Your task to perform on an android device: open app "Adobe Acrobat Reader: Edit PDF" (install if not already installed) and go to login screen Image 0: 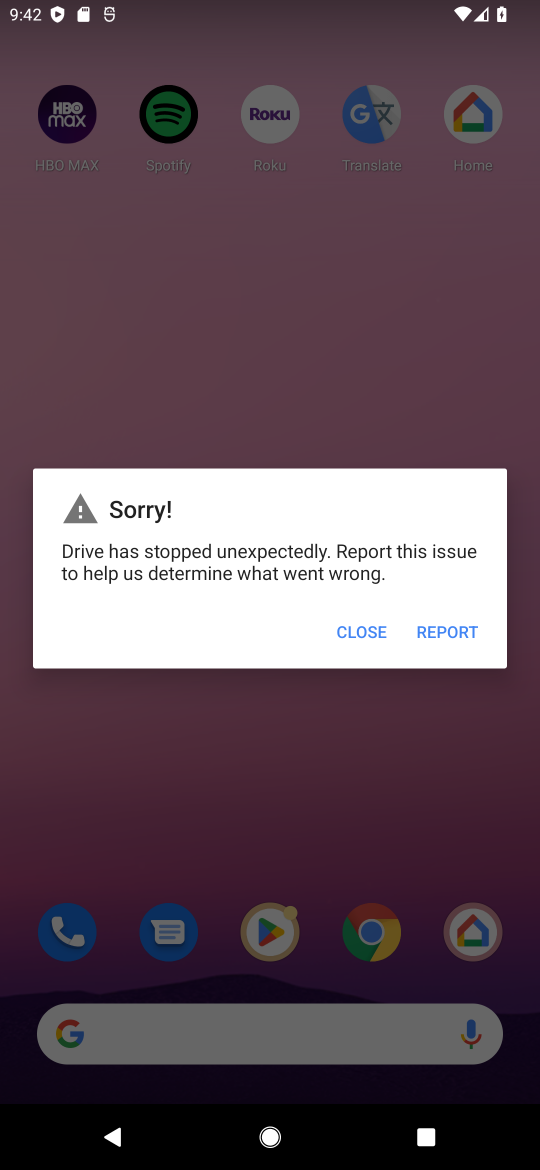
Step 0: click (347, 631)
Your task to perform on an android device: open app "Adobe Acrobat Reader: Edit PDF" (install if not already installed) and go to login screen Image 1: 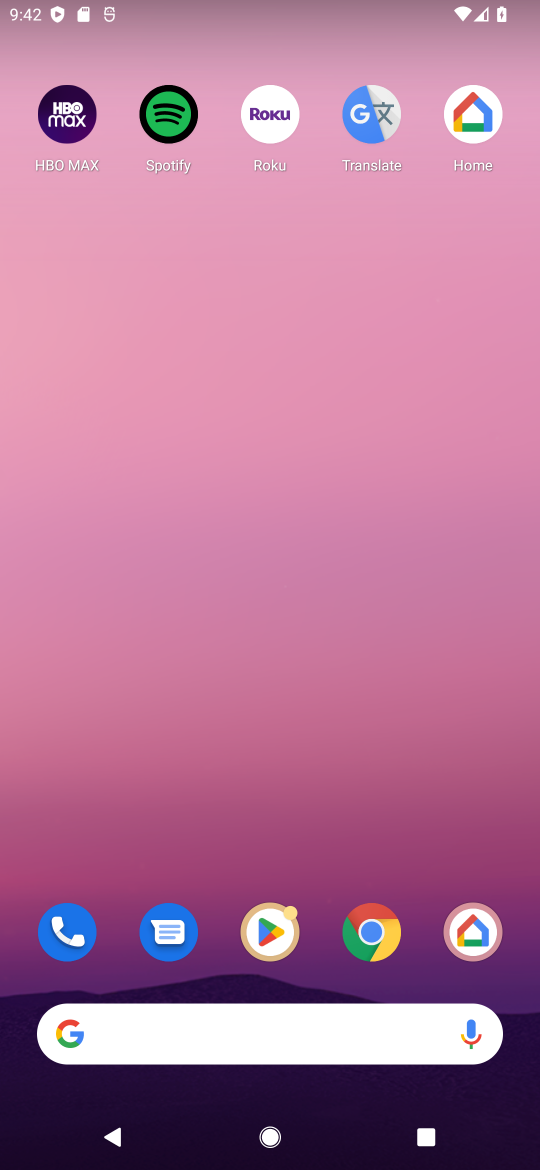
Step 1: click (272, 924)
Your task to perform on an android device: open app "Adobe Acrobat Reader: Edit PDF" (install if not already installed) and go to login screen Image 2: 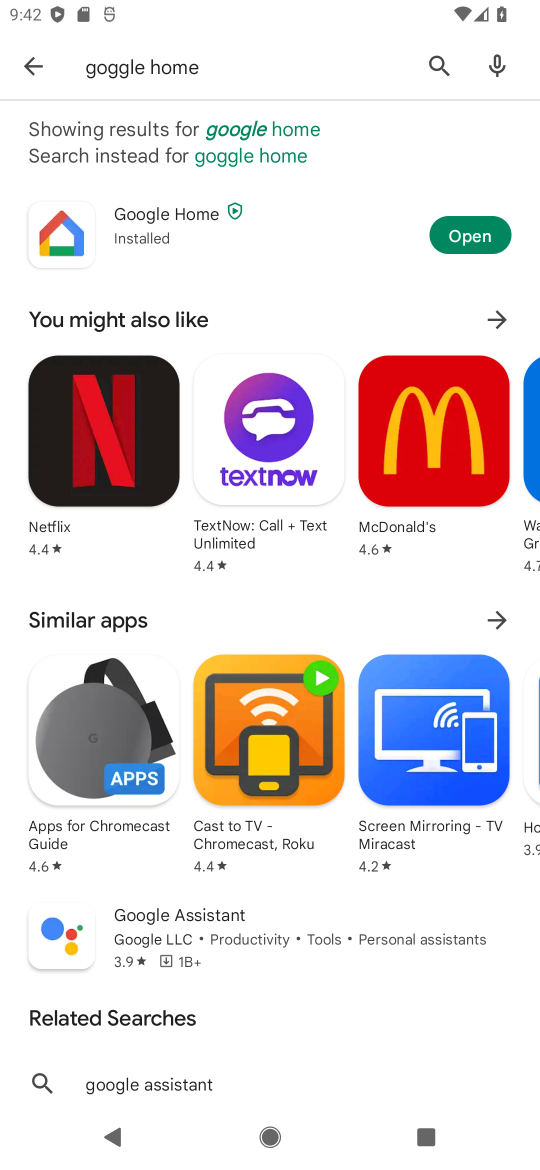
Step 2: click (433, 56)
Your task to perform on an android device: open app "Adobe Acrobat Reader: Edit PDF" (install if not already installed) and go to login screen Image 3: 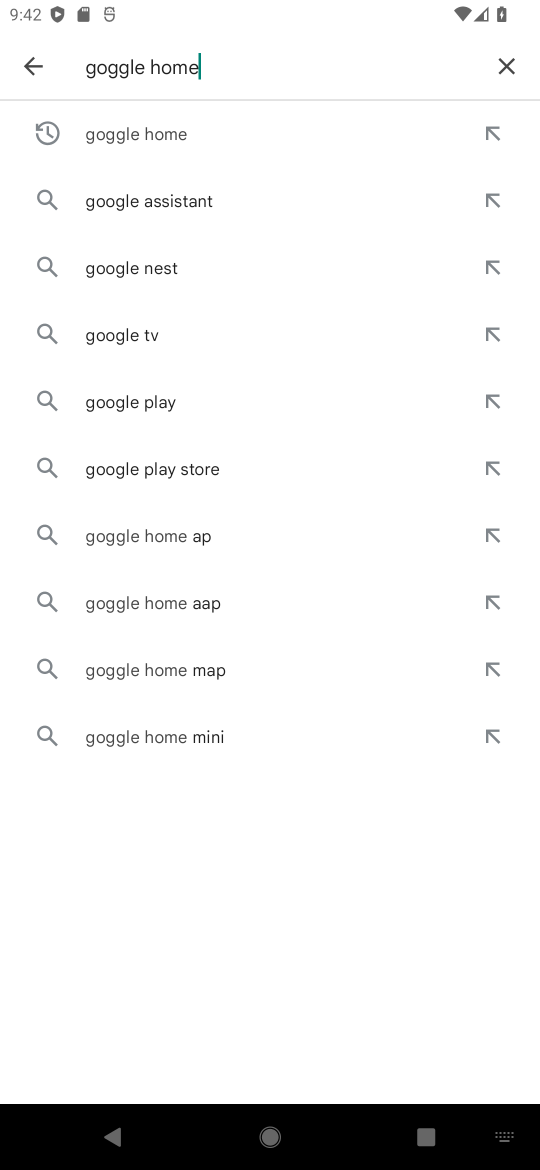
Step 3: click (509, 62)
Your task to perform on an android device: open app "Adobe Acrobat Reader: Edit PDF" (install if not already installed) and go to login screen Image 4: 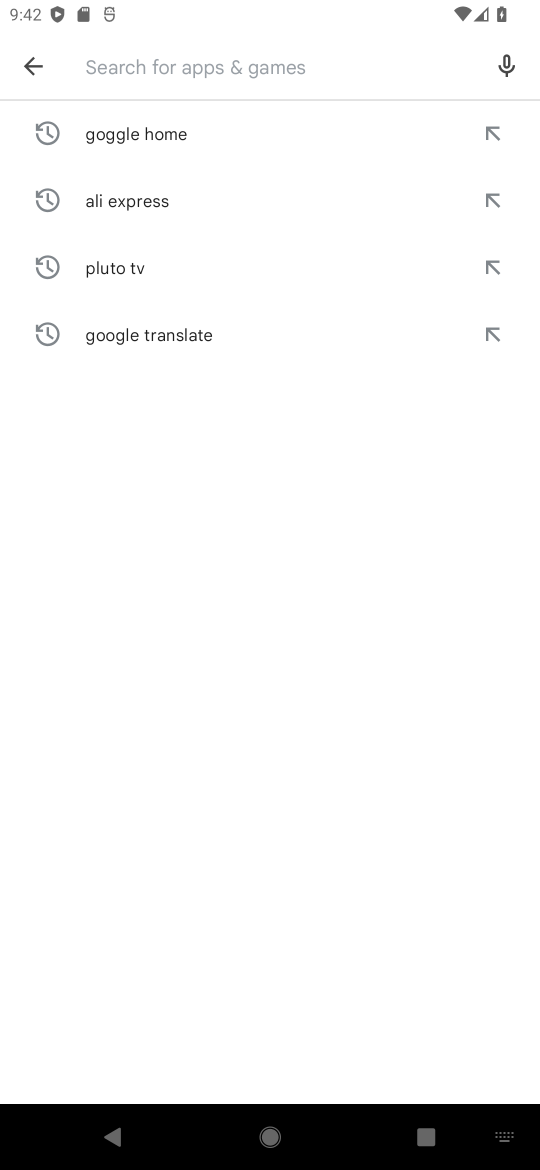
Step 4: click (156, 69)
Your task to perform on an android device: open app "Adobe Acrobat Reader: Edit PDF" (install if not already installed) and go to login screen Image 5: 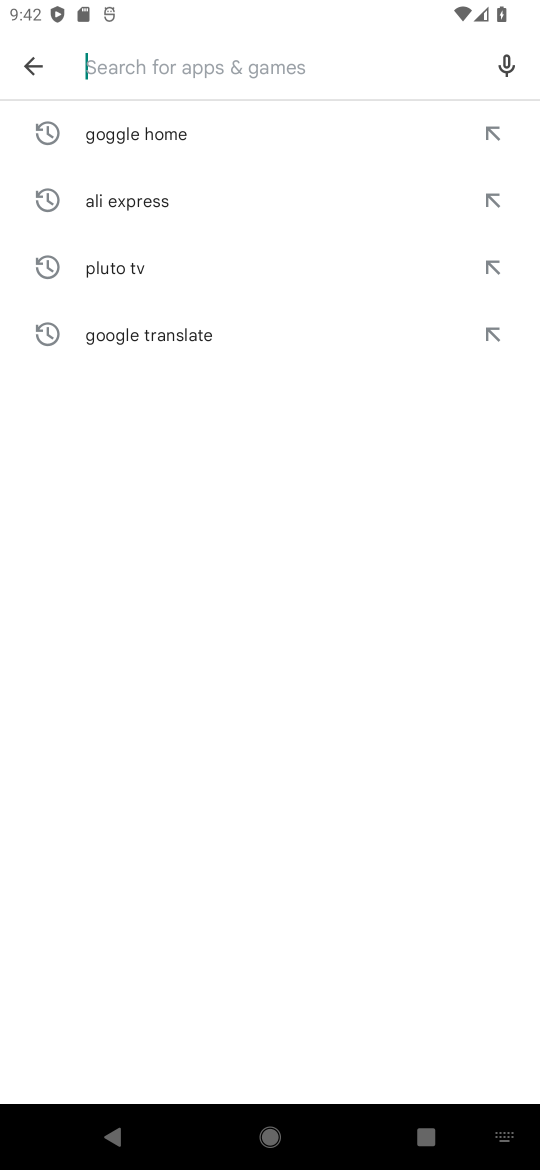
Step 5: type "Adobe Acrobat Reader"
Your task to perform on an android device: open app "Adobe Acrobat Reader: Edit PDF" (install if not already installed) and go to login screen Image 6: 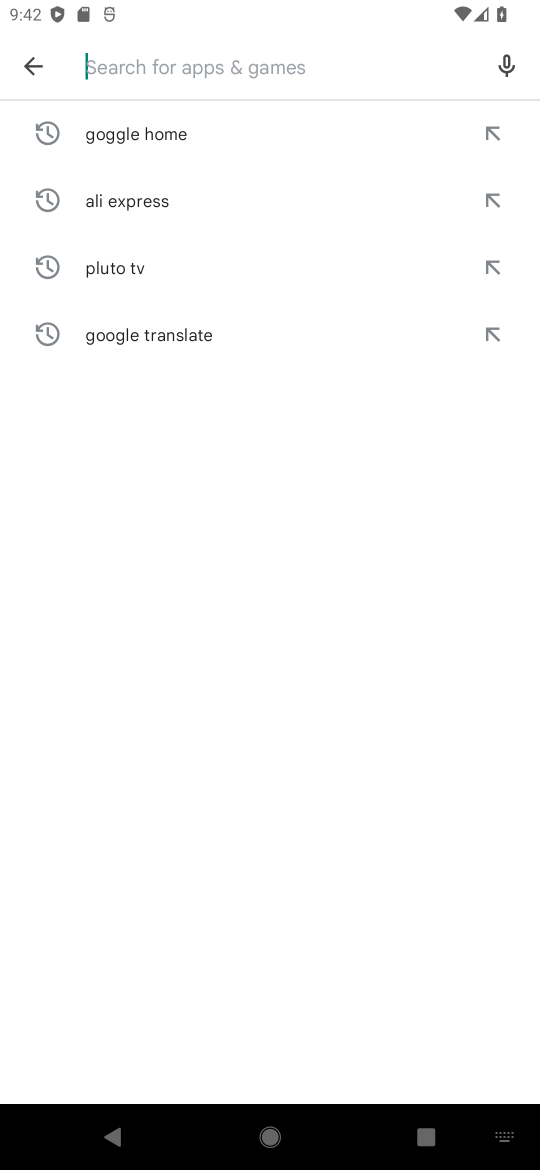
Step 6: click (217, 672)
Your task to perform on an android device: open app "Adobe Acrobat Reader: Edit PDF" (install if not already installed) and go to login screen Image 7: 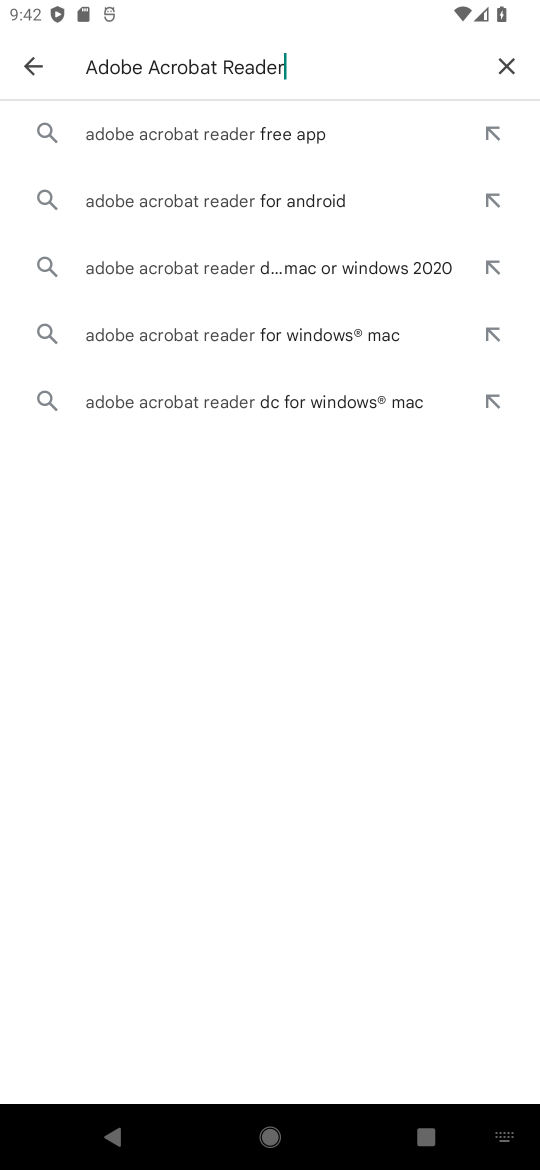
Step 7: click (246, 119)
Your task to perform on an android device: open app "Adobe Acrobat Reader: Edit PDF" (install if not already installed) and go to login screen Image 8: 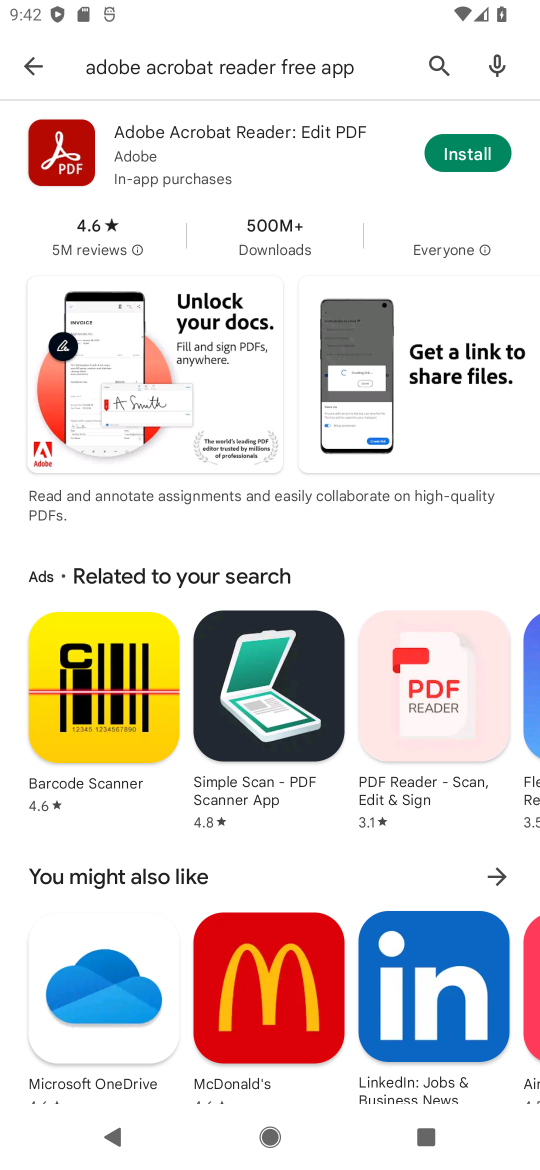
Step 8: click (464, 157)
Your task to perform on an android device: open app "Adobe Acrobat Reader: Edit PDF" (install if not already installed) and go to login screen Image 9: 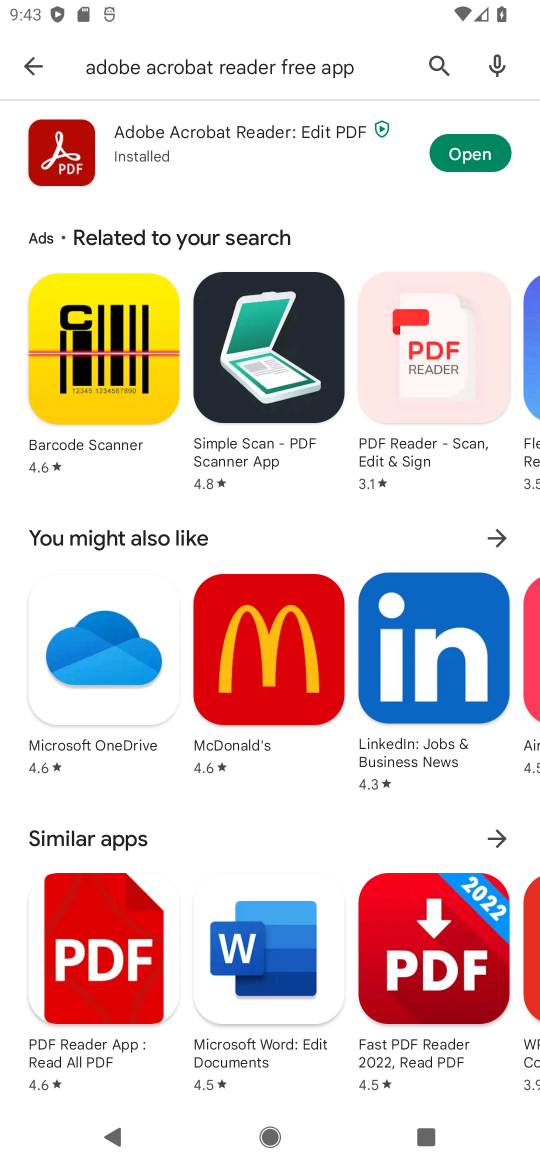
Step 9: click (472, 170)
Your task to perform on an android device: open app "Adobe Acrobat Reader: Edit PDF" (install if not already installed) and go to login screen Image 10: 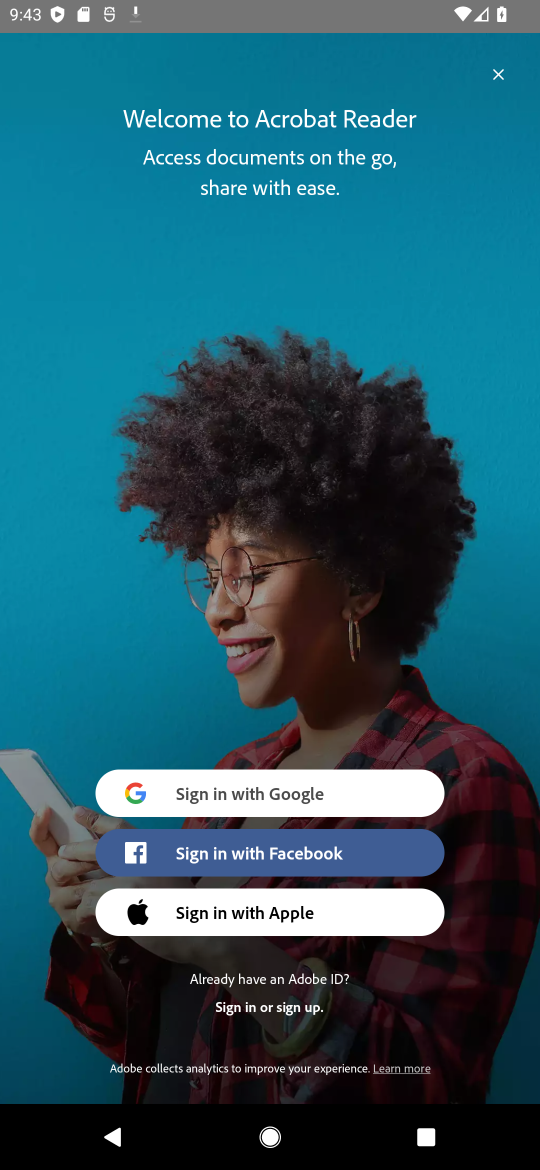
Step 10: task complete